Your task to perform on an android device: open a bookmark in the chrome app Image 0: 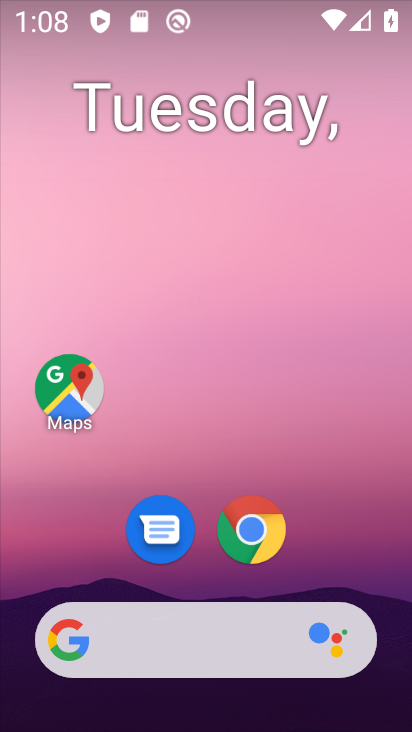
Step 0: drag from (334, 541) to (331, 111)
Your task to perform on an android device: open a bookmark in the chrome app Image 1: 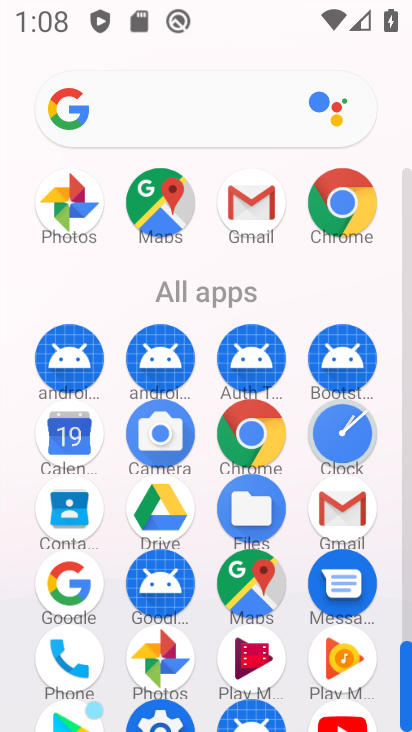
Step 1: click (355, 198)
Your task to perform on an android device: open a bookmark in the chrome app Image 2: 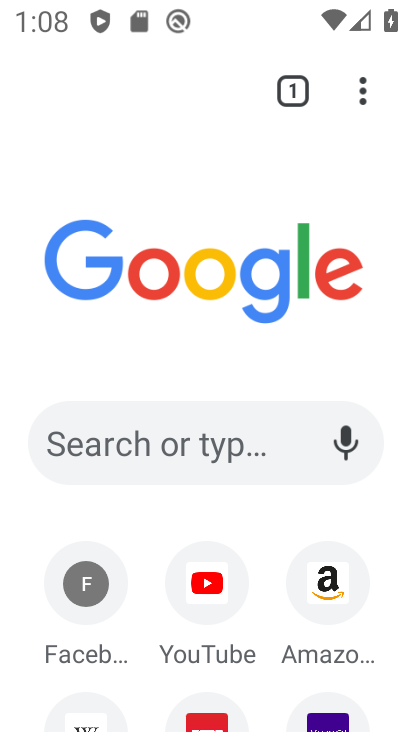
Step 2: click (364, 93)
Your task to perform on an android device: open a bookmark in the chrome app Image 3: 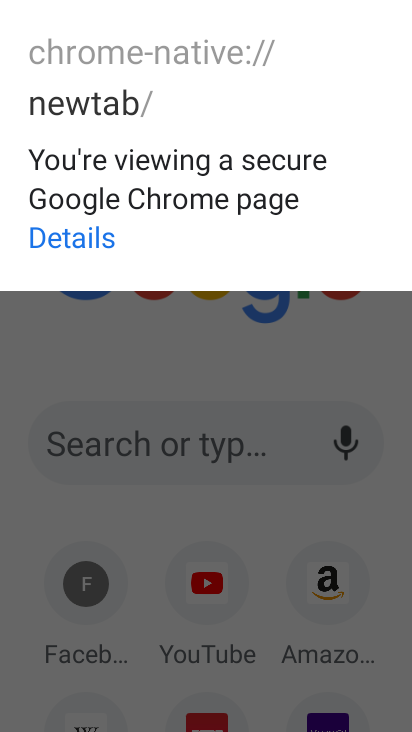
Step 3: click (258, 357)
Your task to perform on an android device: open a bookmark in the chrome app Image 4: 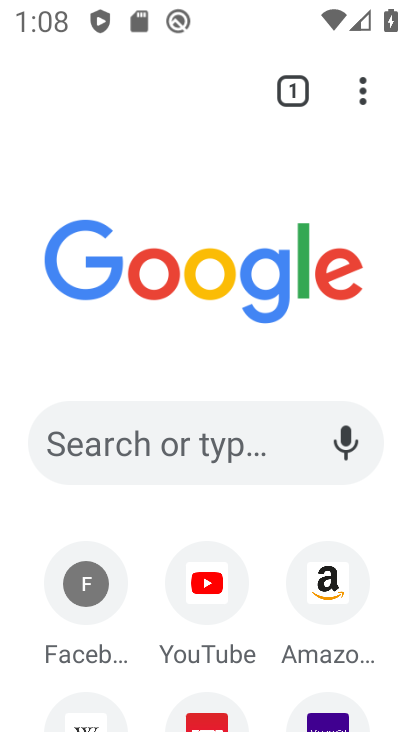
Step 4: click (361, 89)
Your task to perform on an android device: open a bookmark in the chrome app Image 5: 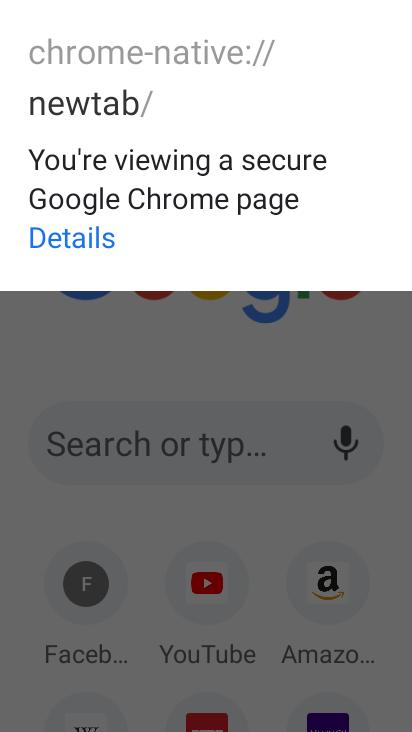
Step 5: click (366, 97)
Your task to perform on an android device: open a bookmark in the chrome app Image 6: 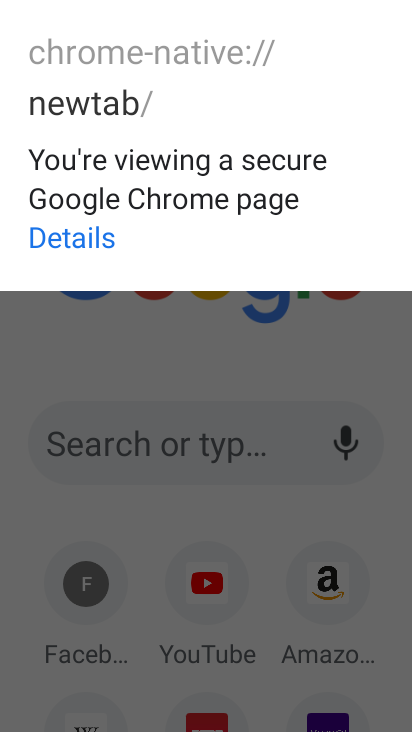
Step 6: click (91, 358)
Your task to perform on an android device: open a bookmark in the chrome app Image 7: 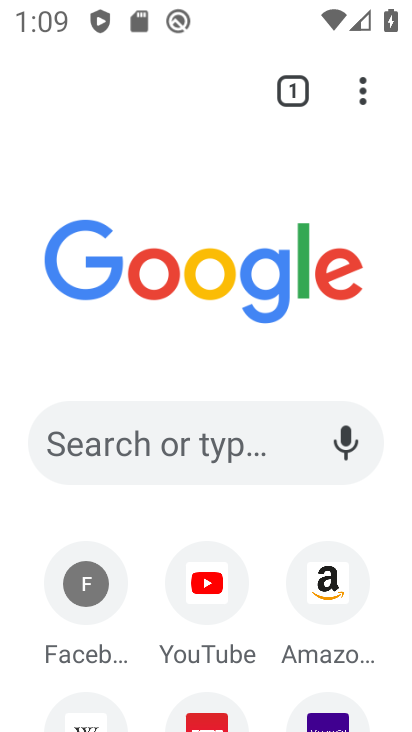
Step 7: click (365, 342)
Your task to perform on an android device: open a bookmark in the chrome app Image 8: 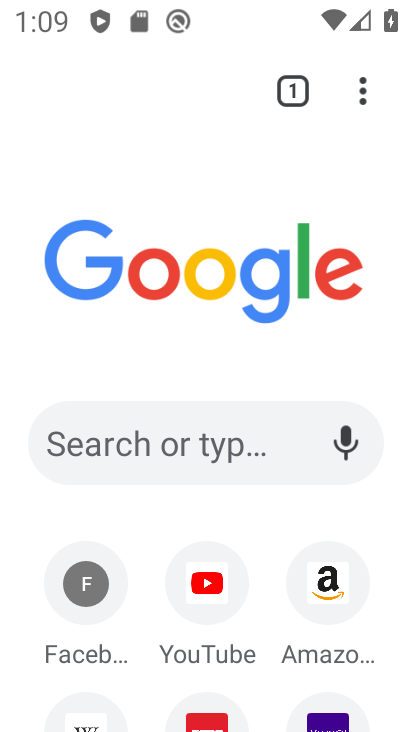
Step 8: click (359, 91)
Your task to perform on an android device: open a bookmark in the chrome app Image 9: 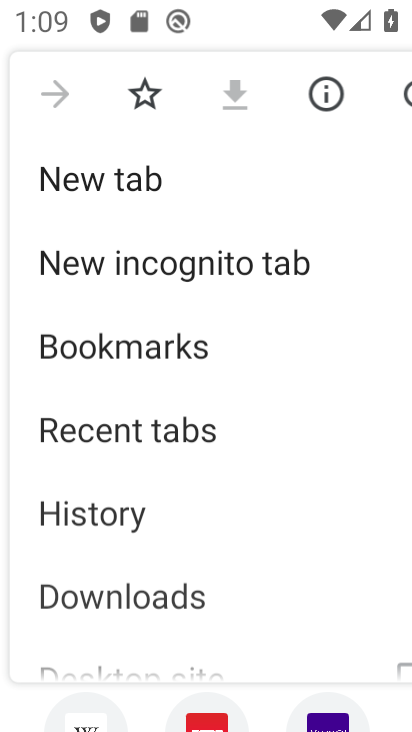
Step 9: click (359, 91)
Your task to perform on an android device: open a bookmark in the chrome app Image 10: 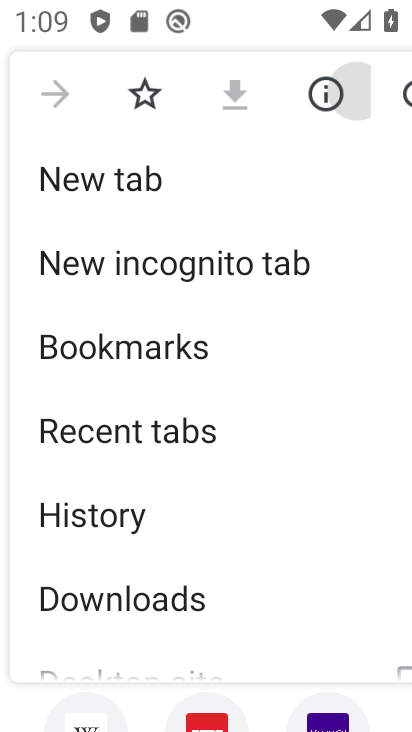
Step 10: click (359, 91)
Your task to perform on an android device: open a bookmark in the chrome app Image 11: 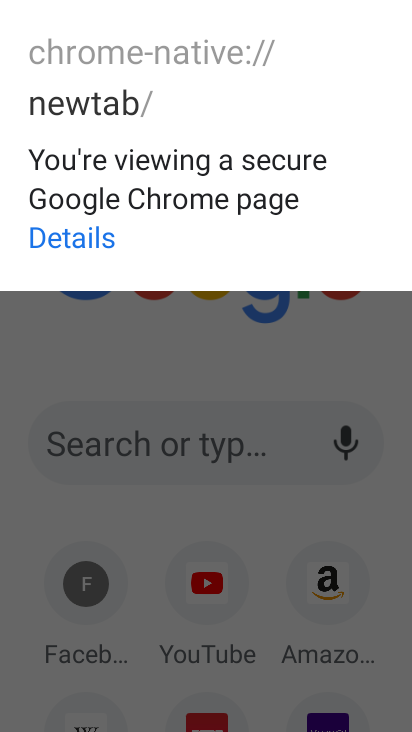
Step 11: click (31, 334)
Your task to perform on an android device: open a bookmark in the chrome app Image 12: 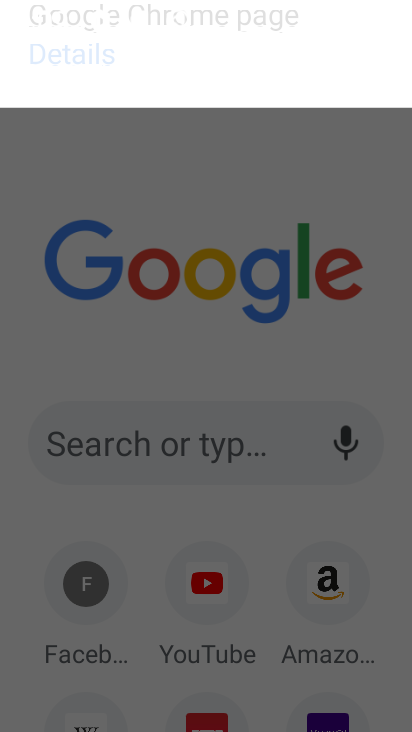
Step 12: click (36, 329)
Your task to perform on an android device: open a bookmark in the chrome app Image 13: 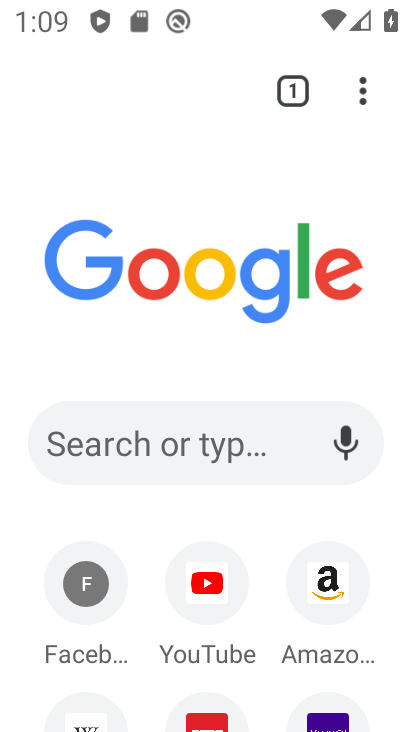
Step 13: click (359, 88)
Your task to perform on an android device: open a bookmark in the chrome app Image 14: 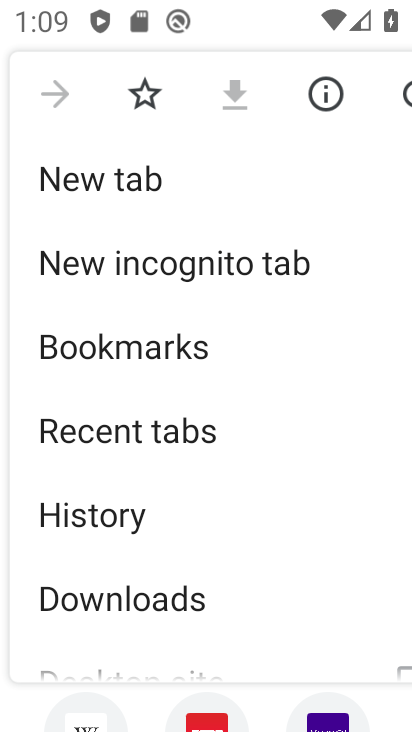
Step 14: click (208, 340)
Your task to perform on an android device: open a bookmark in the chrome app Image 15: 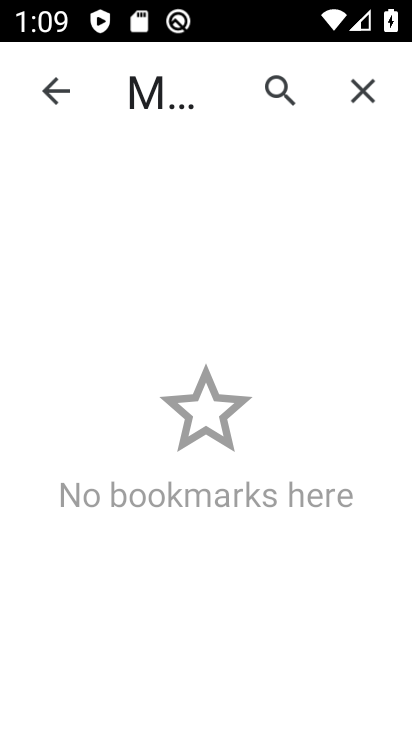
Step 15: task complete